Your task to perform on an android device: toggle priority inbox in the gmail app Image 0: 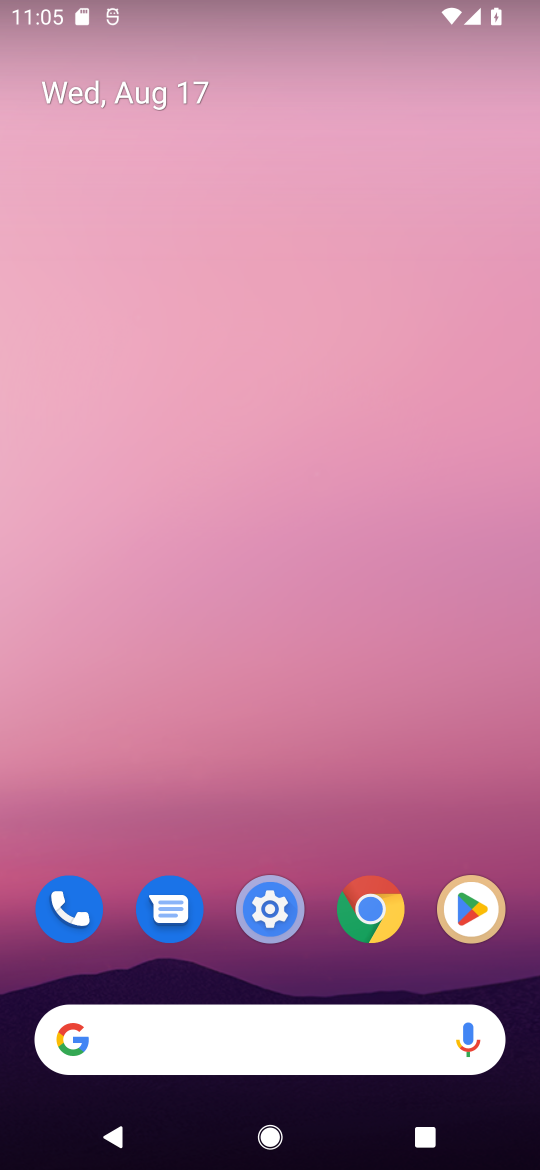
Step 0: click (196, 946)
Your task to perform on an android device: toggle priority inbox in the gmail app Image 1: 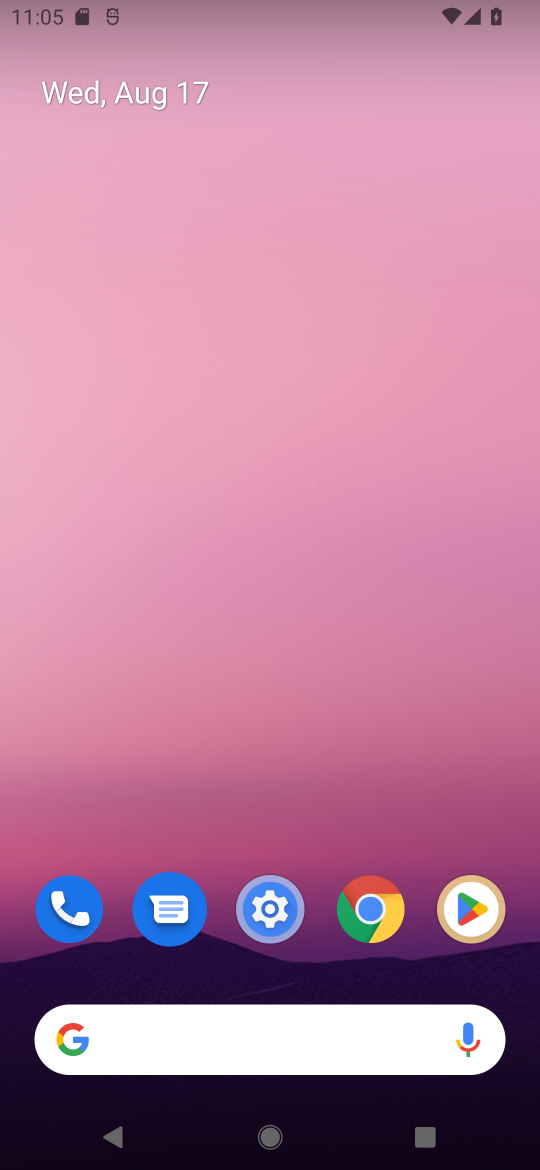
Step 1: drag from (288, 448) to (320, 130)
Your task to perform on an android device: toggle priority inbox in the gmail app Image 2: 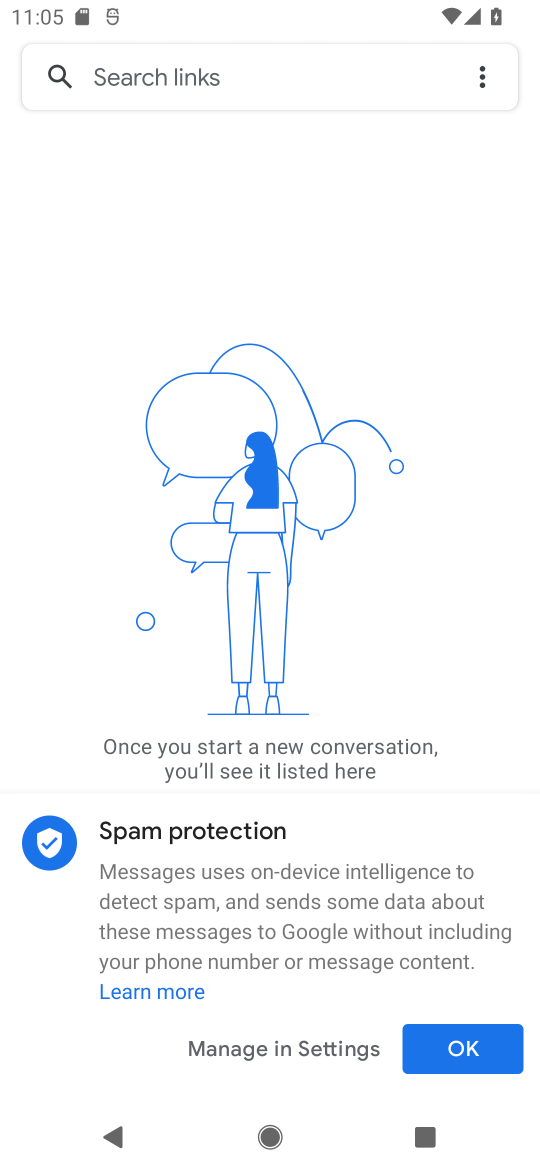
Step 2: press home button
Your task to perform on an android device: toggle priority inbox in the gmail app Image 3: 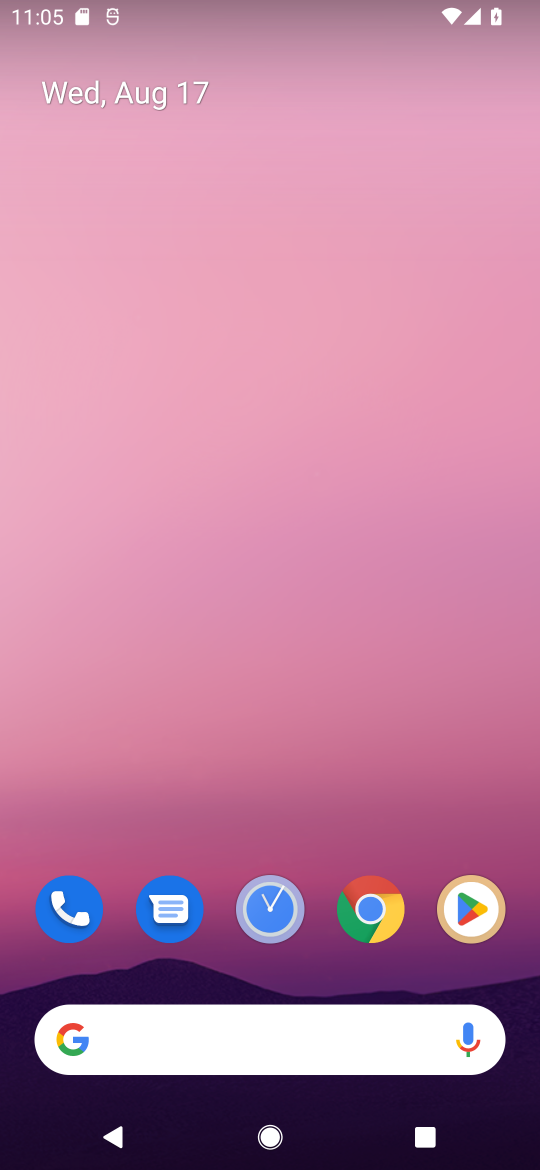
Step 3: drag from (259, 950) to (304, 266)
Your task to perform on an android device: toggle priority inbox in the gmail app Image 4: 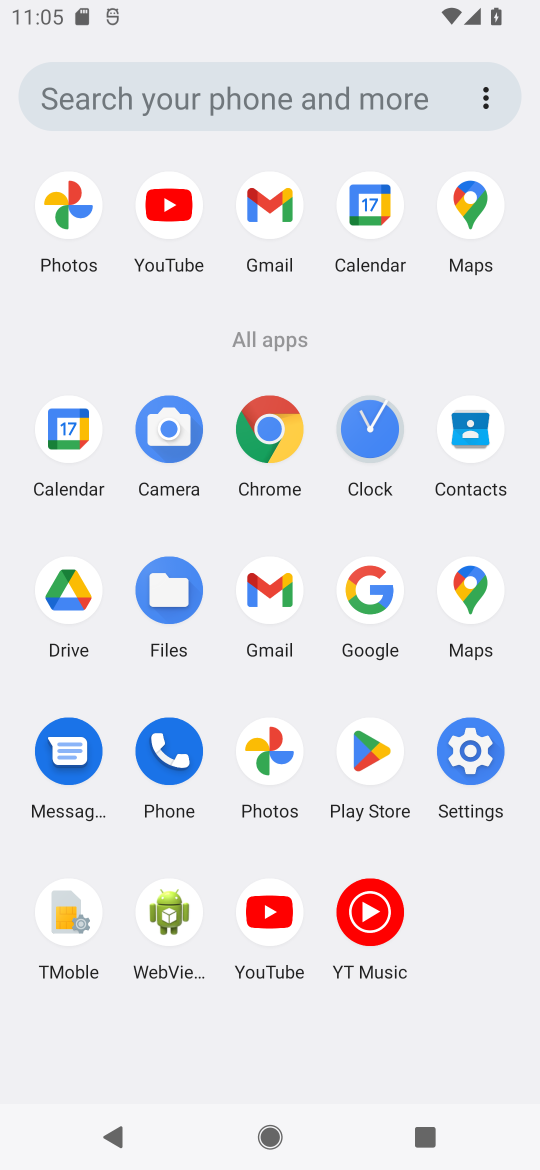
Step 4: click (248, 601)
Your task to perform on an android device: toggle priority inbox in the gmail app Image 5: 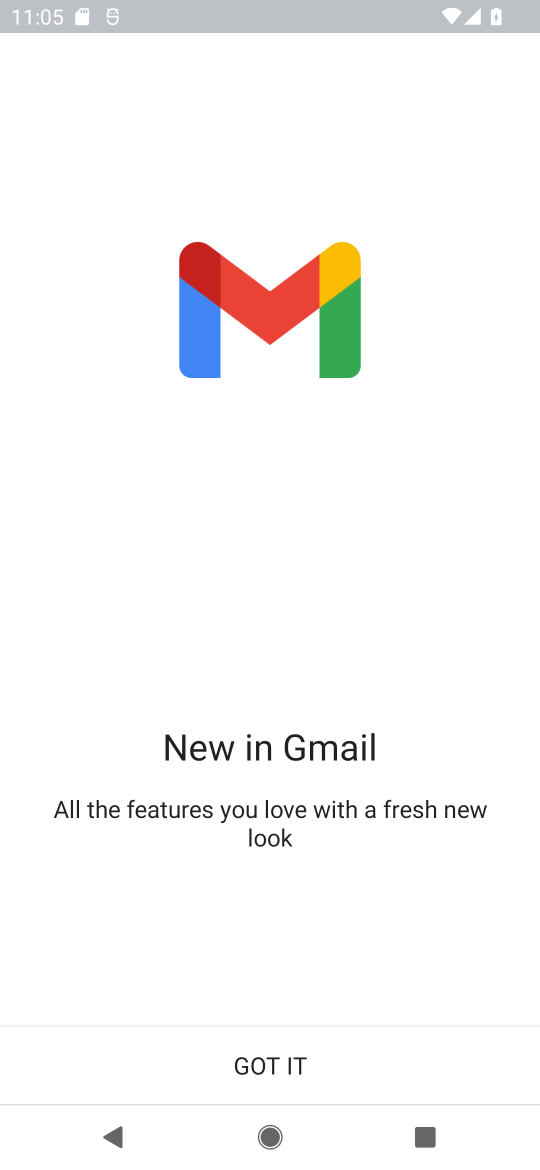
Step 5: click (275, 1060)
Your task to perform on an android device: toggle priority inbox in the gmail app Image 6: 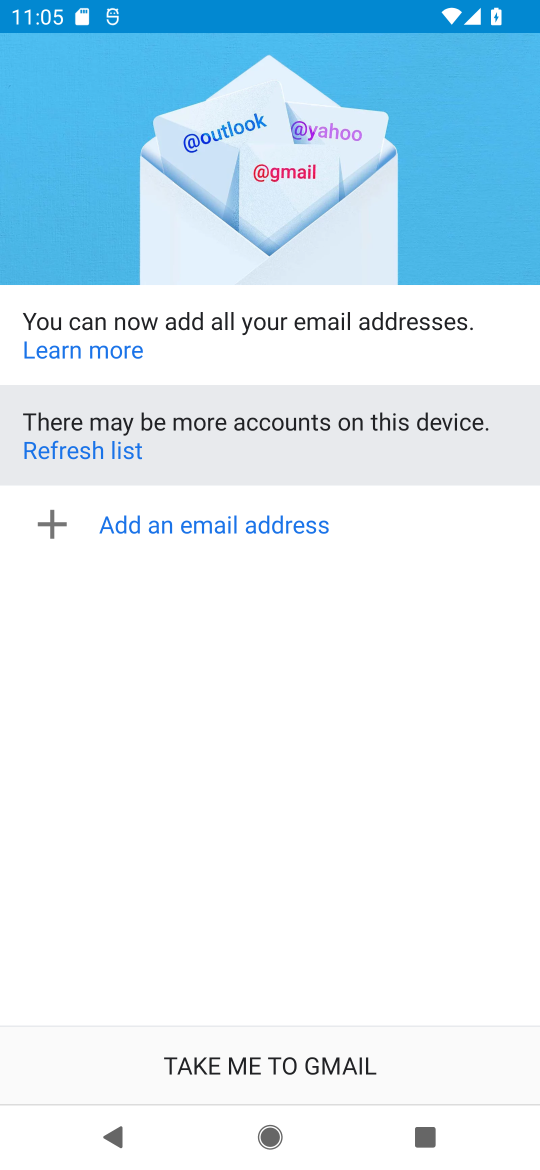
Step 6: click (275, 1060)
Your task to perform on an android device: toggle priority inbox in the gmail app Image 7: 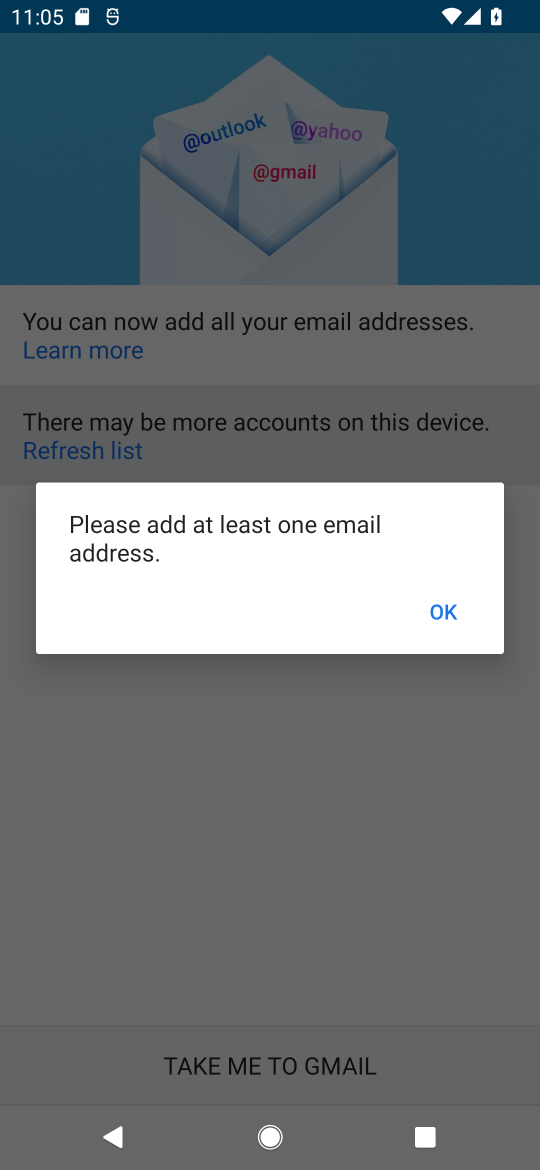
Step 7: click (275, 1060)
Your task to perform on an android device: toggle priority inbox in the gmail app Image 8: 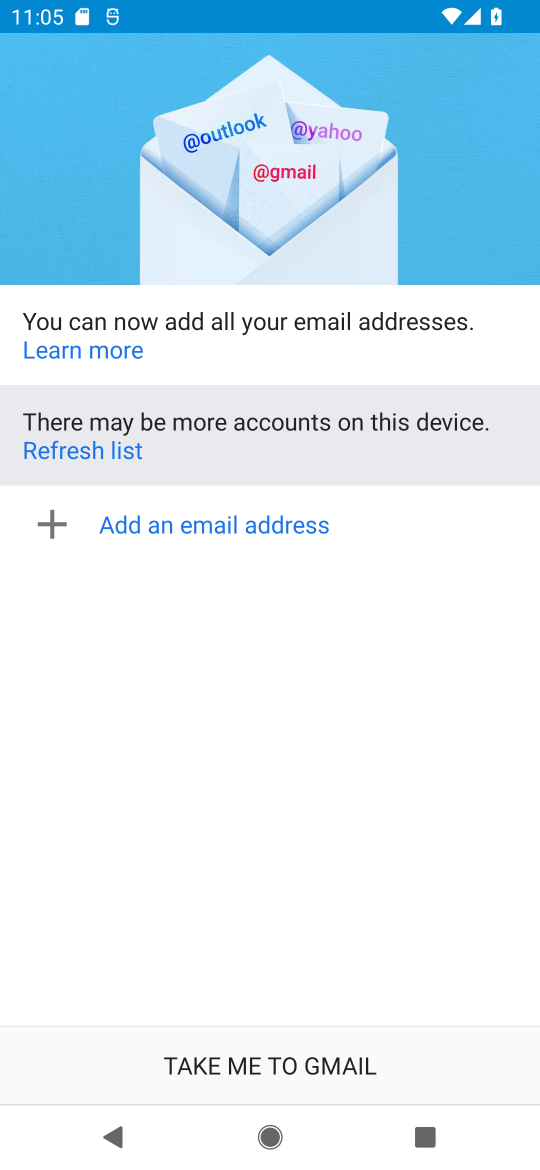
Step 8: click (222, 1067)
Your task to perform on an android device: toggle priority inbox in the gmail app Image 9: 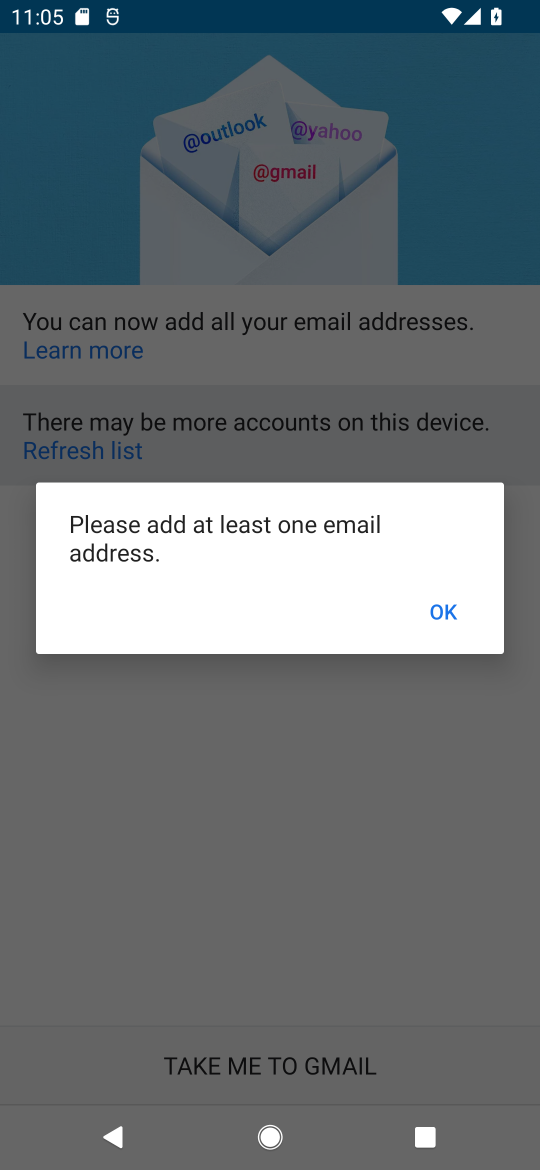
Step 9: click (440, 592)
Your task to perform on an android device: toggle priority inbox in the gmail app Image 10: 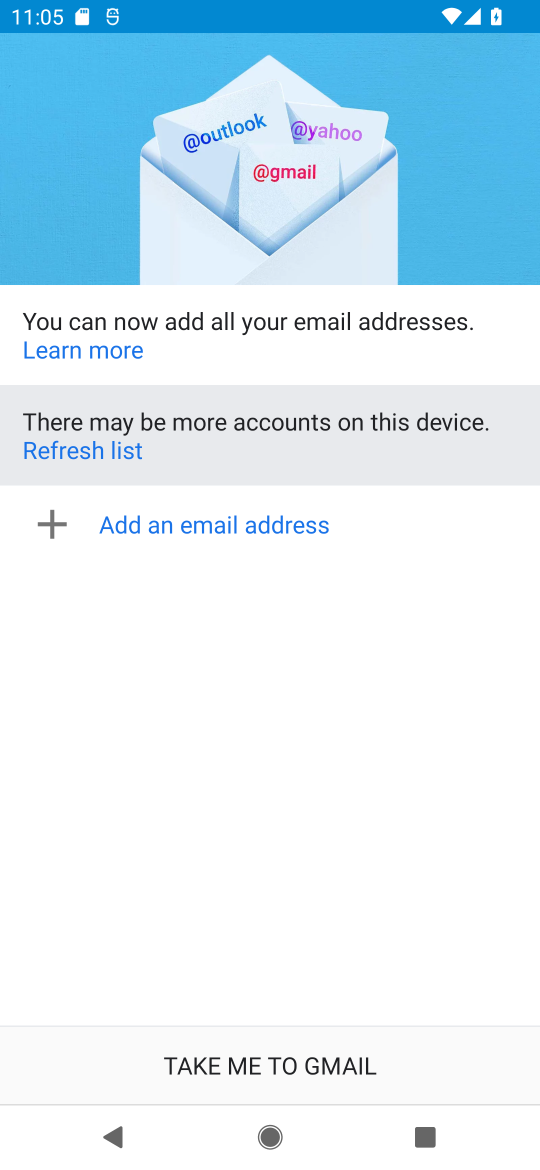
Step 10: task complete